Your task to perform on an android device: Go to Reddit.com Image 0: 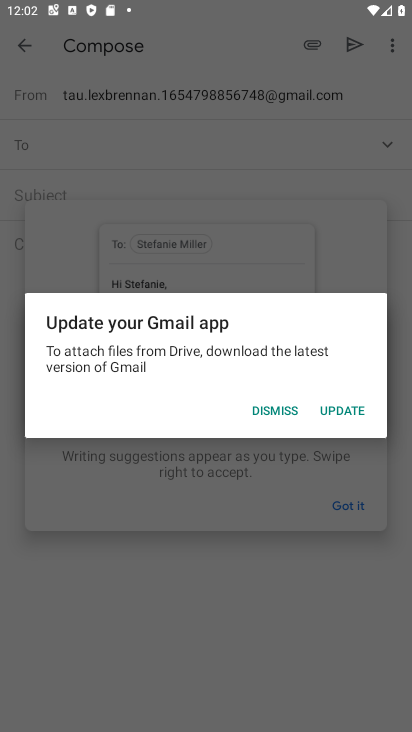
Step 0: press home button
Your task to perform on an android device: Go to Reddit.com Image 1: 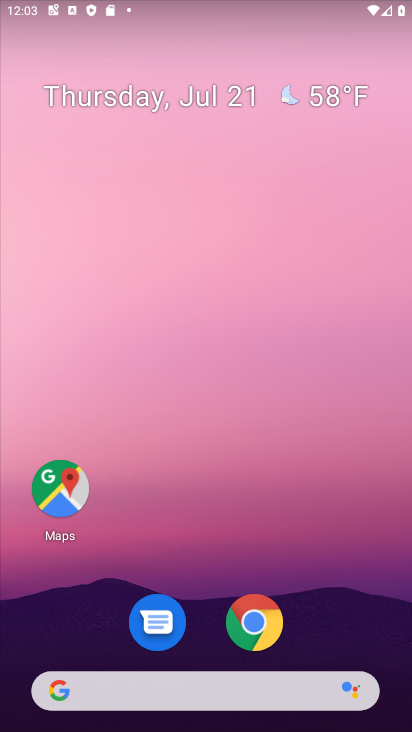
Step 1: click (110, 685)
Your task to perform on an android device: Go to Reddit.com Image 2: 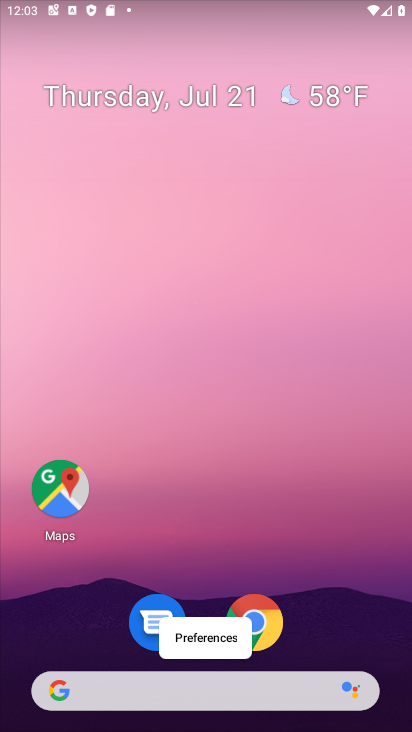
Step 2: click (83, 688)
Your task to perform on an android device: Go to Reddit.com Image 3: 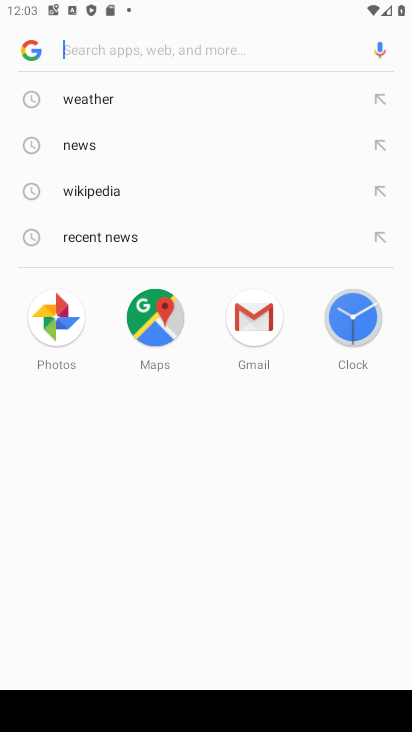
Step 3: type "Reddit.com"
Your task to perform on an android device: Go to Reddit.com Image 4: 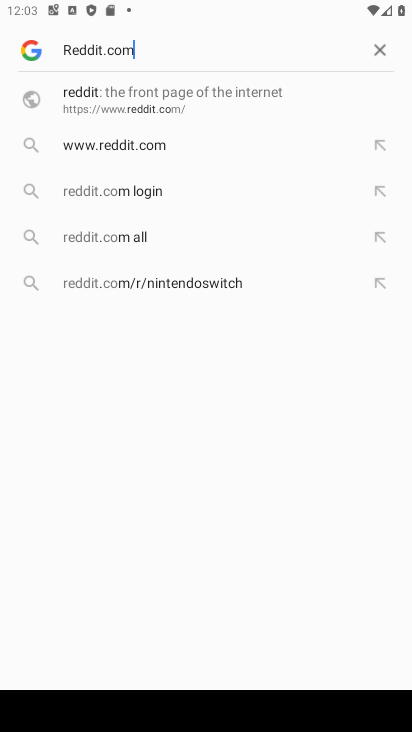
Step 4: type ""
Your task to perform on an android device: Go to Reddit.com Image 5: 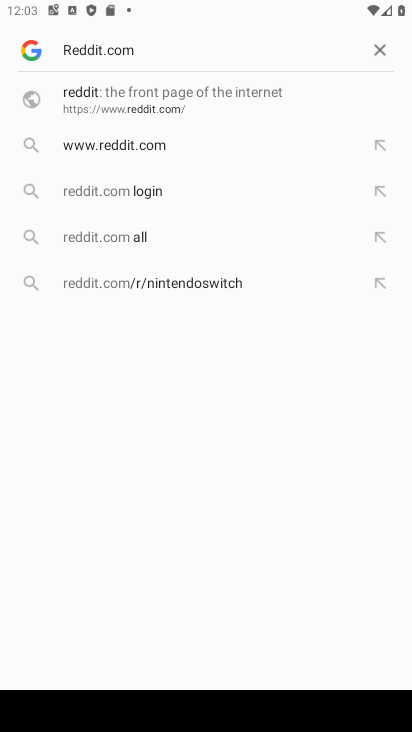
Step 5: click (92, 88)
Your task to perform on an android device: Go to Reddit.com Image 6: 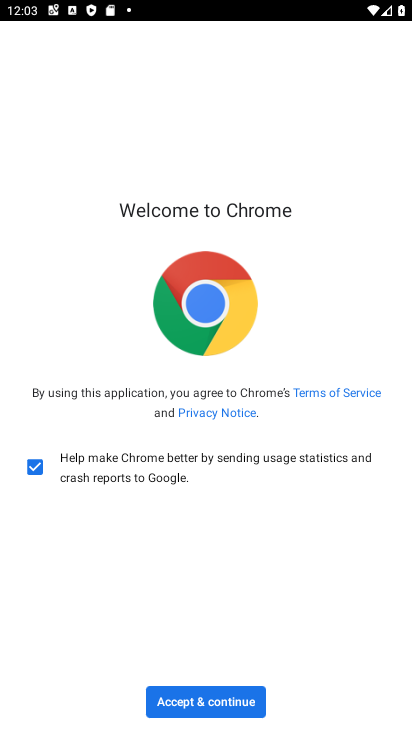
Step 6: click (232, 706)
Your task to perform on an android device: Go to Reddit.com Image 7: 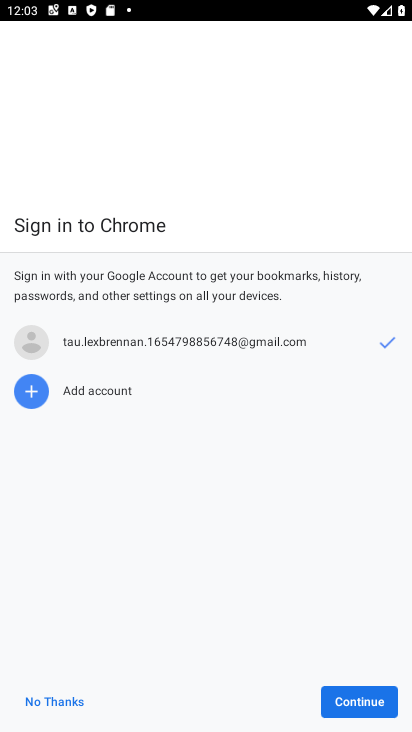
Step 7: click (341, 699)
Your task to perform on an android device: Go to Reddit.com Image 8: 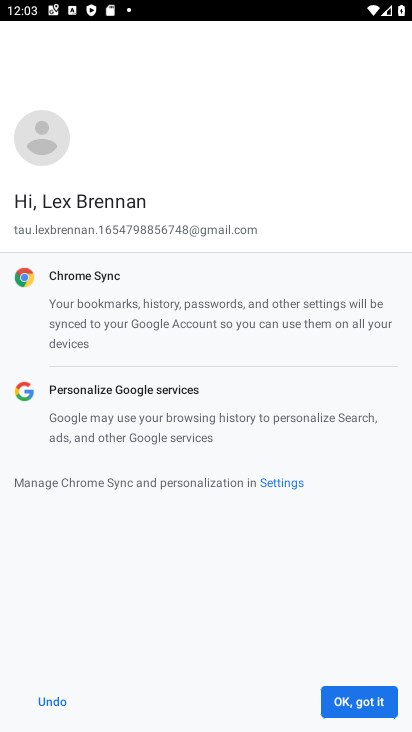
Step 8: click (355, 706)
Your task to perform on an android device: Go to Reddit.com Image 9: 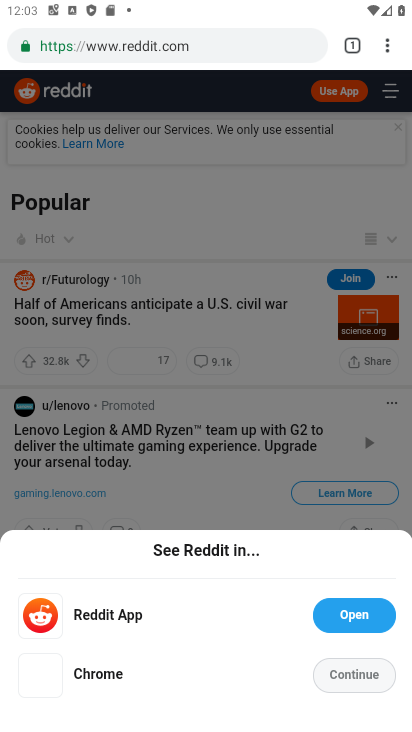
Step 9: task complete